Your task to perform on an android device: open device folders in google photos Image 0: 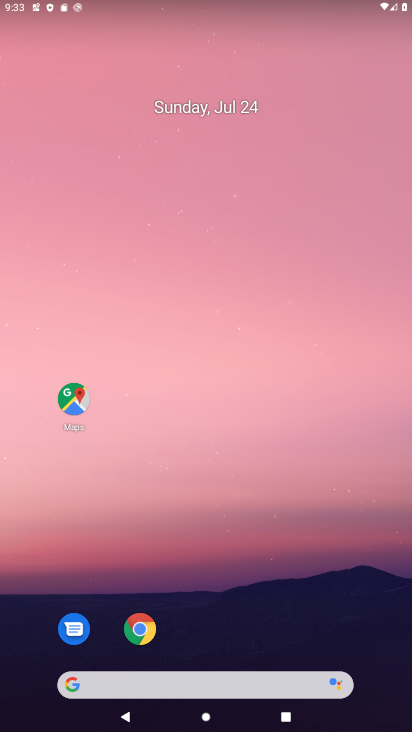
Step 0: drag from (258, 637) to (252, 57)
Your task to perform on an android device: open device folders in google photos Image 1: 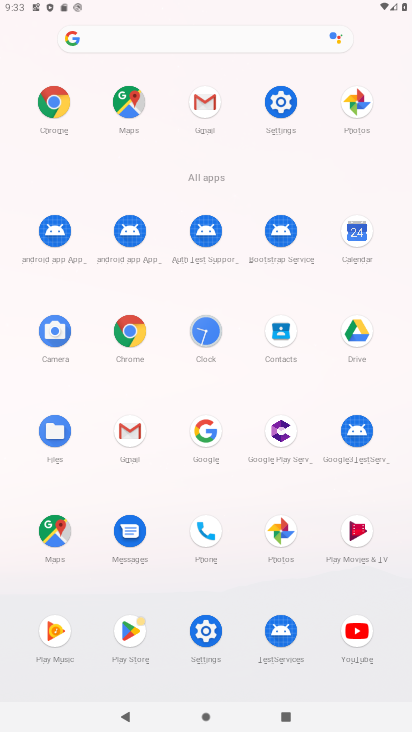
Step 1: click (350, 123)
Your task to perform on an android device: open device folders in google photos Image 2: 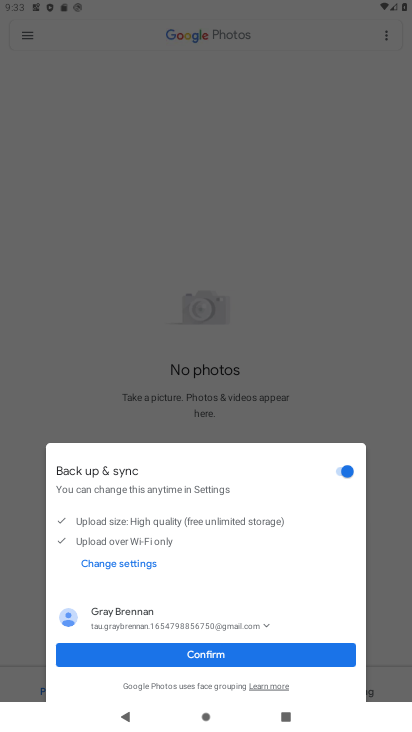
Step 2: click (163, 653)
Your task to perform on an android device: open device folders in google photos Image 3: 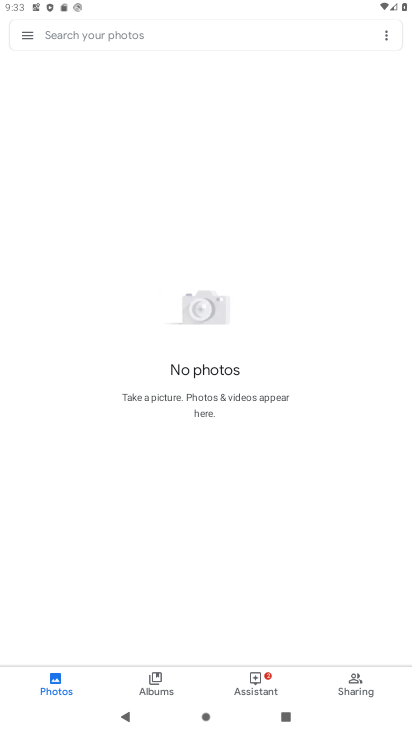
Step 3: click (34, 46)
Your task to perform on an android device: open device folders in google photos Image 4: 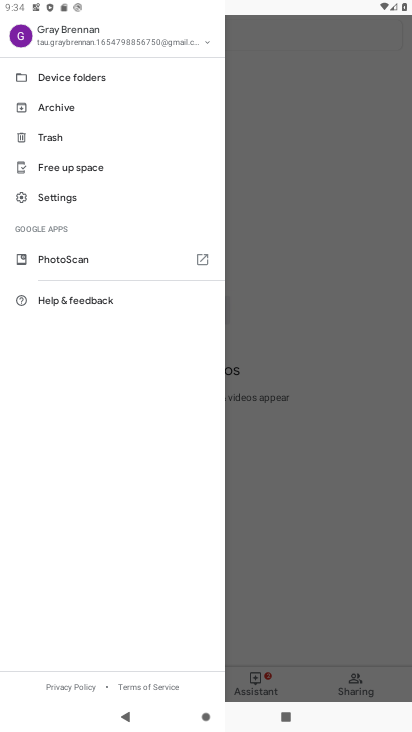
Step 4: click (45, 91)
Your task to perform on an android device: open device folders in google photos Image 5: 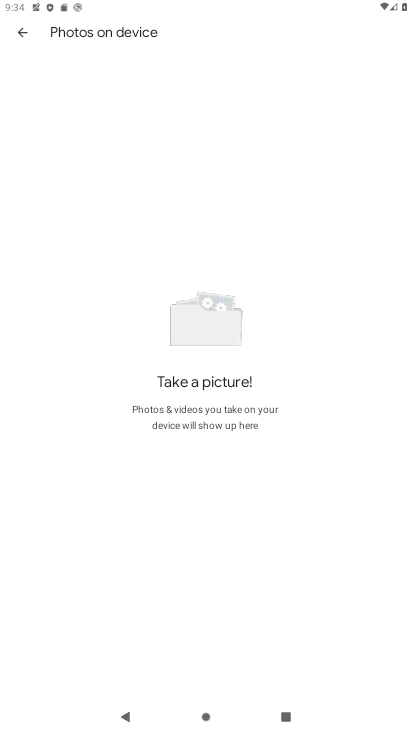
Step 5: task complete